Your task to perform on an android device: delete the emails in spam in the gmail app Image 0: 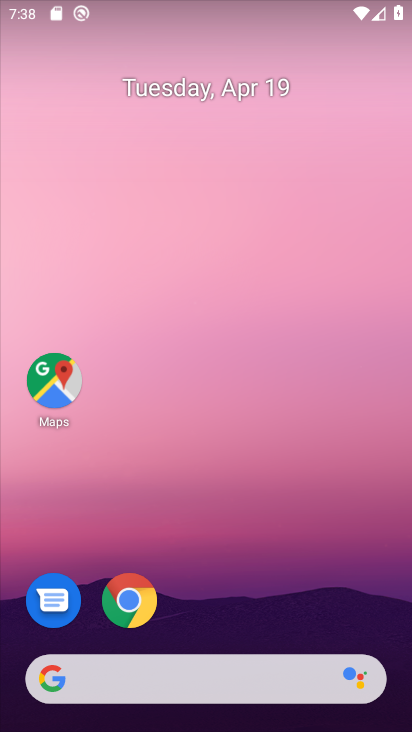
Step 0: drag from (367, 617) to (365, 122)
Your task to perform on an android device: delete the emails in spam in the gmail app Image 1: 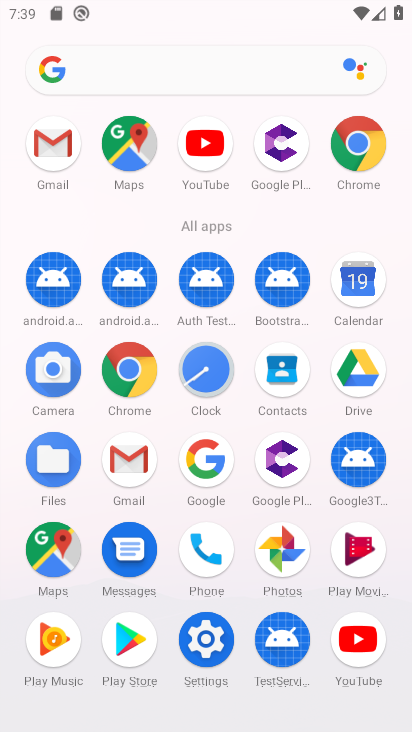
Step 1: click (132, 467)
Your task to perform on an android device: delete the emails in spam in the gmail app Image 2: 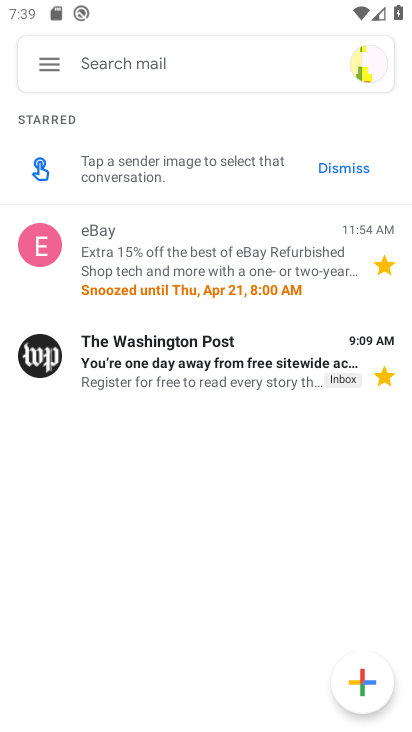
Step 2: click (50, 61)
Your task to perform on an android device: delete the emails in spam in the gmail app Image 3: 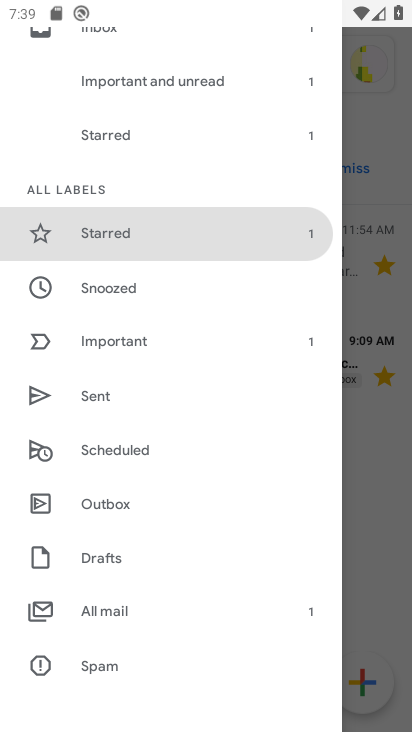
Step 3: drag from (244, 191) to (234, 454)
Your task to perform on an android device: delete the emails in spam in the gmail app Image 4: 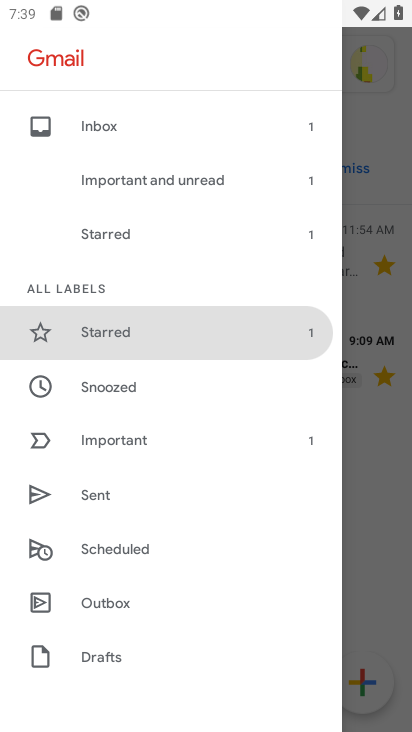
Step 4: click (120, 122)
Your task to perform on an android device: delete the emails in spam in the gmail app Image 5: 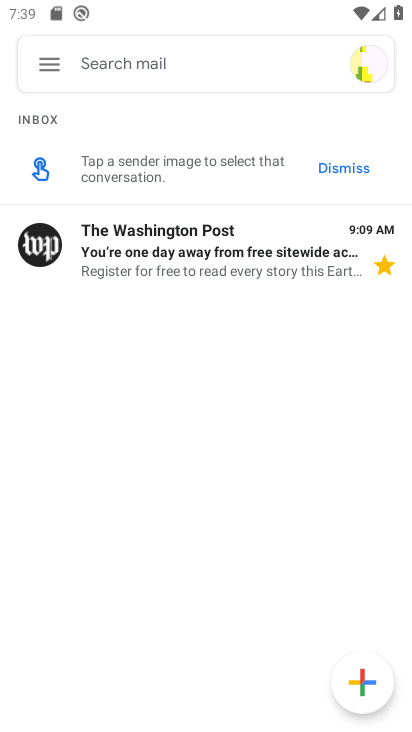
Step 5: click (224, 260)
Your task to perform on an android device: delete the emails in spam in the gmail app Image 6: 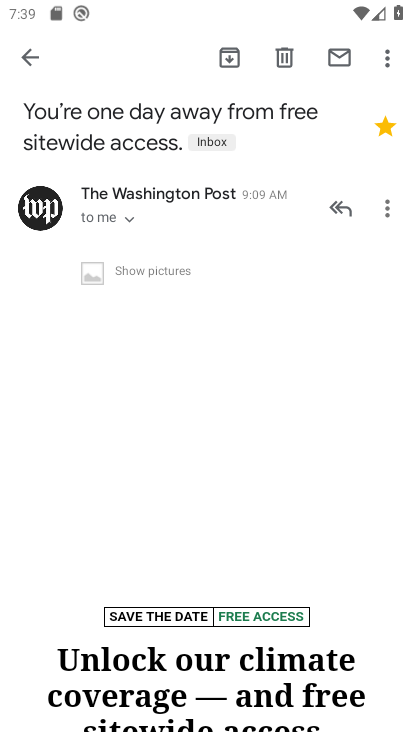
Step 6: click (286, 60)
Your task to perform on an android device: delete the emails in spam in the gmail app Image 7: 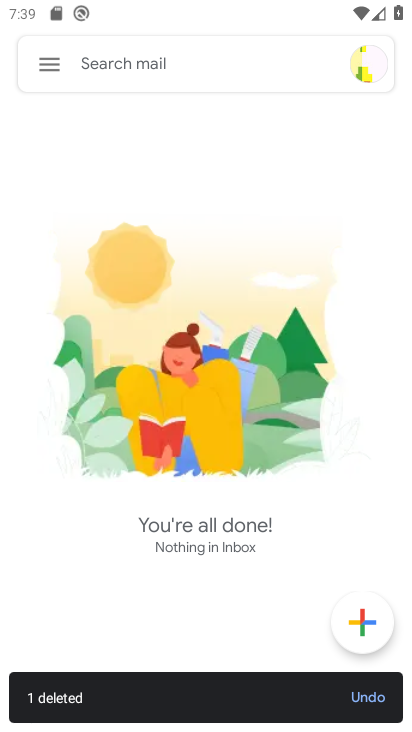
Step 7: task complete